Your task to perform on an android device: Go to Android settings Image 0: 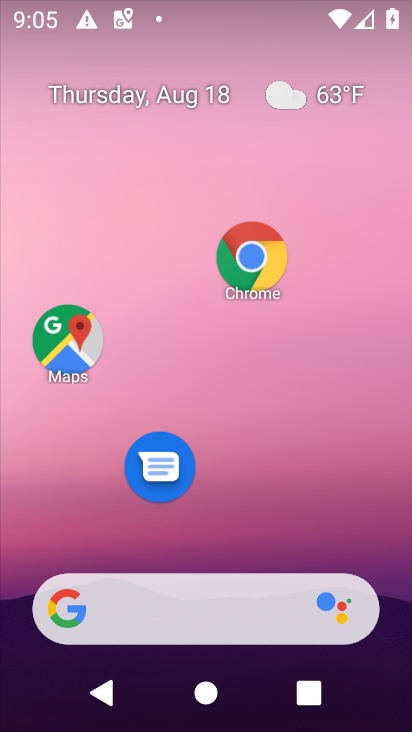
Step 0: drag from (239, 482) to (255, 161)
Your task to perform on an android device: Go to Android settings Image 1: 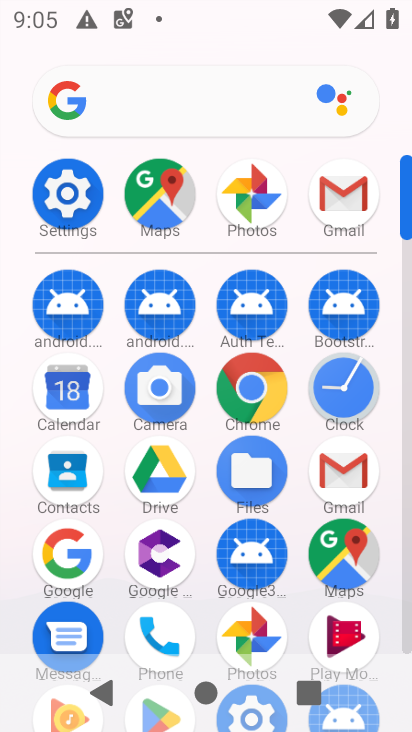
Step 1: click (61, 169)
Your task to perform on an android device: Go to Android settings Image 2: 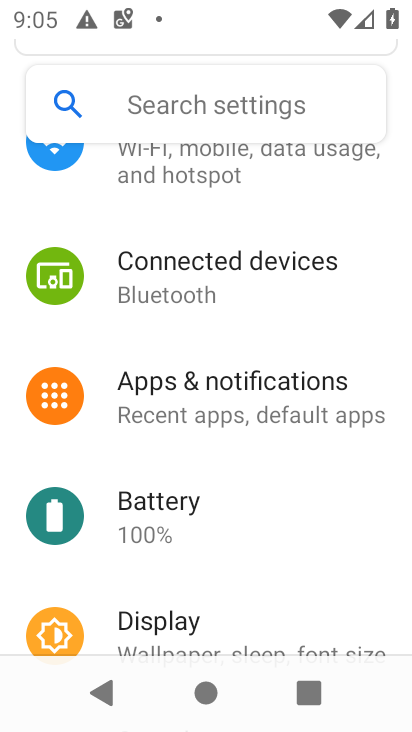
Step 2: task complete